Your task to perform on an android device: What's on my calendar tomorrow? Image 0: 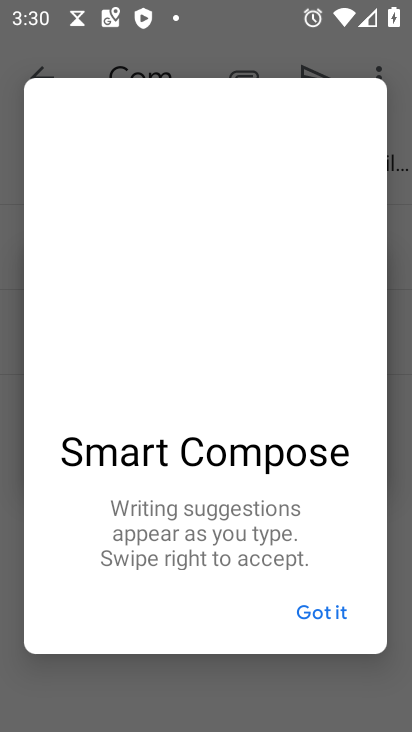
Step 0: press home button
Your task to perform on an android device: What's on my calendar tomorrow? Image 1: 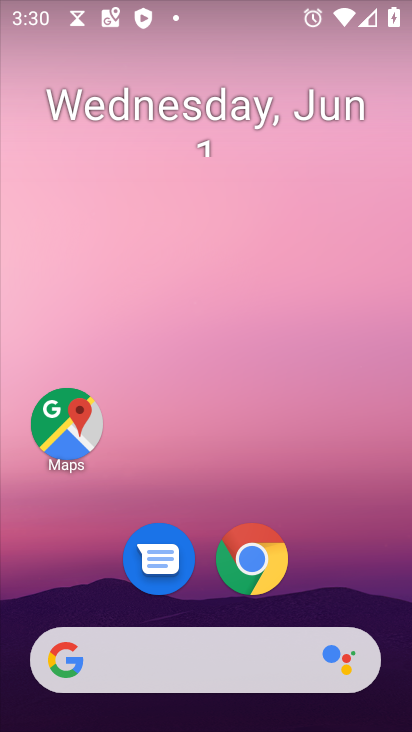
Step 1: drag from (316, 559) to (294, 20)
Your task to perform on an android device: What's on my calendar tomorrow? Image 2: 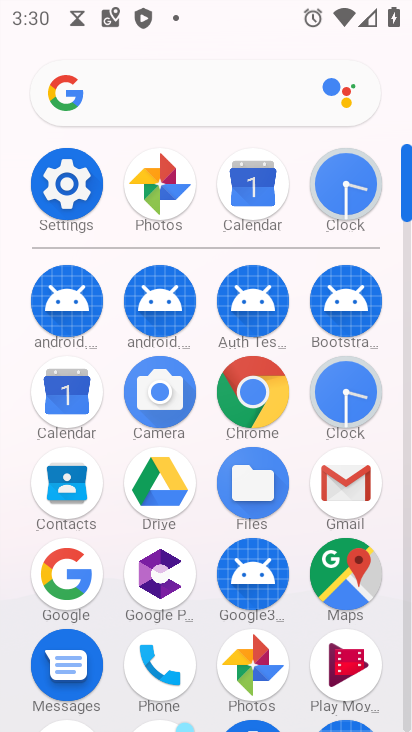
Step 2: click (65, 391)
Your task to perform on an android device: What's on my calendar tomorrow? Image 3: 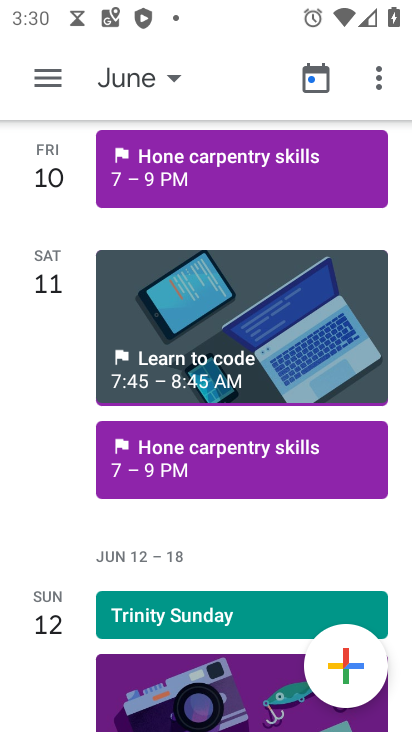
Step 3: click (116, 67)
Your task to perform on an android device: What's on my calendar tomorrow? Image 4: 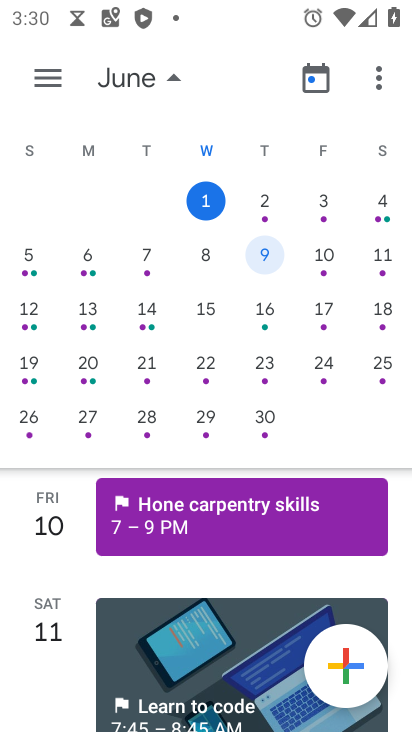
Step 4: click (271, 214)
Your task to perform on an android device: What's on my calendar tomorrow? Image 5: 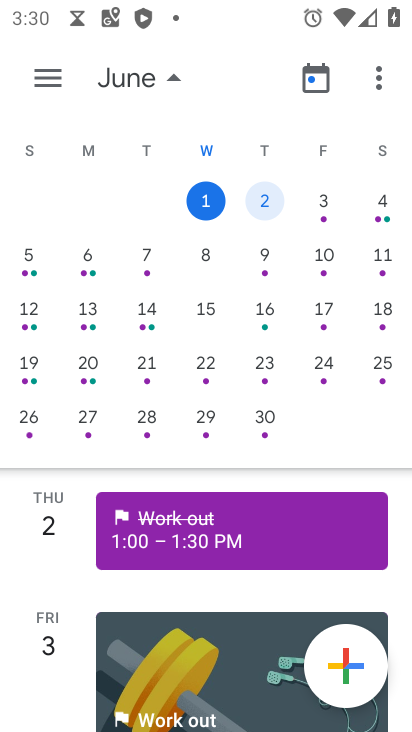
Step 5: task complete